Your task to perform on an android device: turn on bluetooth scan Image 0: 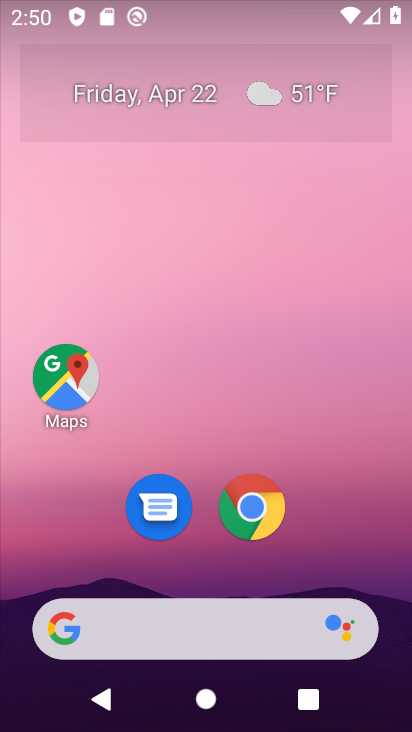
Step 0: drag from (210, 399) to (297, 45)
Your task to perform on an android device: turn on bluetooth scan Image 1: 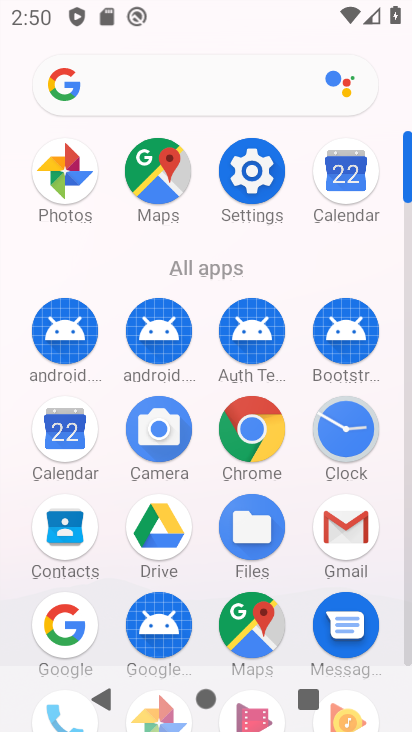
Step 1: click (262, 209)
Your task to perform on an android device: turn on bluetooth scan Image 2: 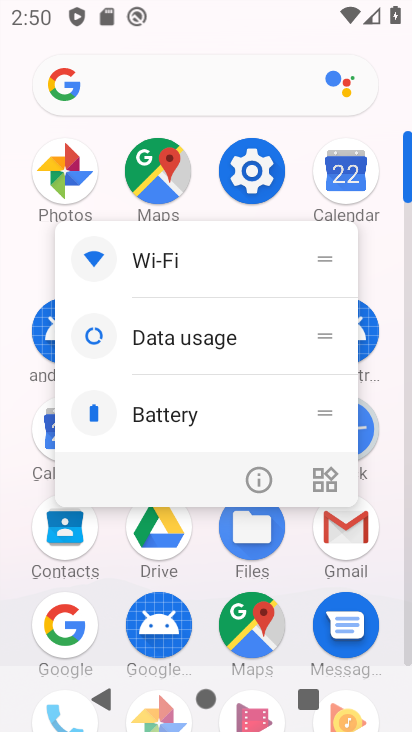
Step 2: click (253, 141)
Your task to perform on an android device: turn on bluetooth scan Image 3: 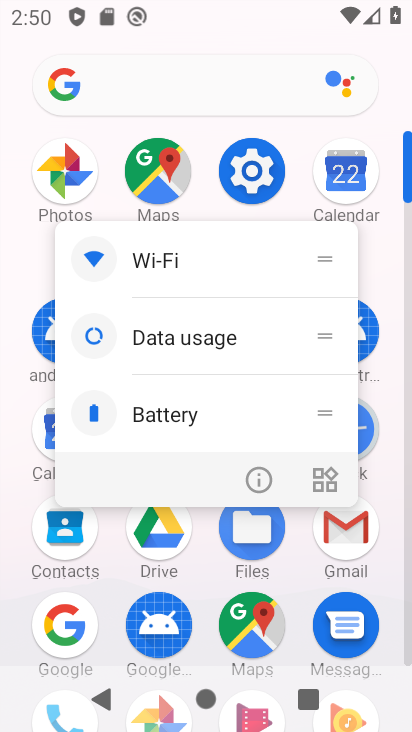
Step 3: click (250, 182)
Your task to perform on an android device: turn on bluetooth scan Image 4: 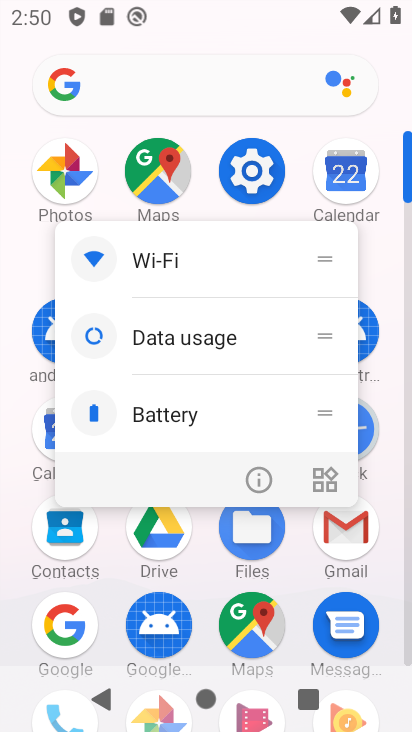
Step 4: click (257, 184)
Your task to perform on an android device: turn on bluetooth scan Image 5: 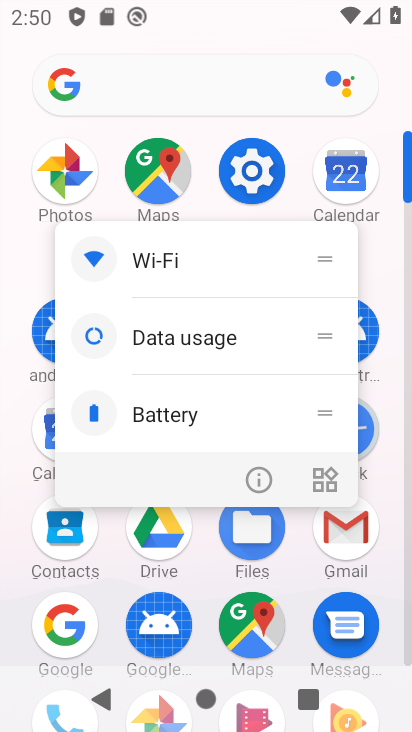
Step 5: click (261, 169)
Your task to perform on an android device: turn on bluetooth scan Image 6: 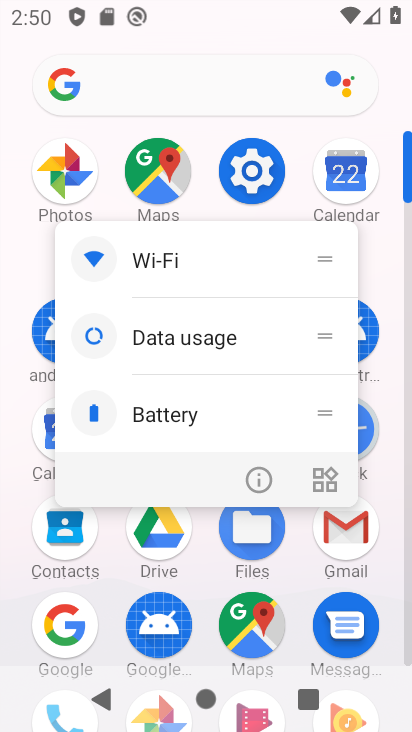
Step 6: click (251, 180)
Your task to perform on an android device: turn on bluetooth scan Image 7: 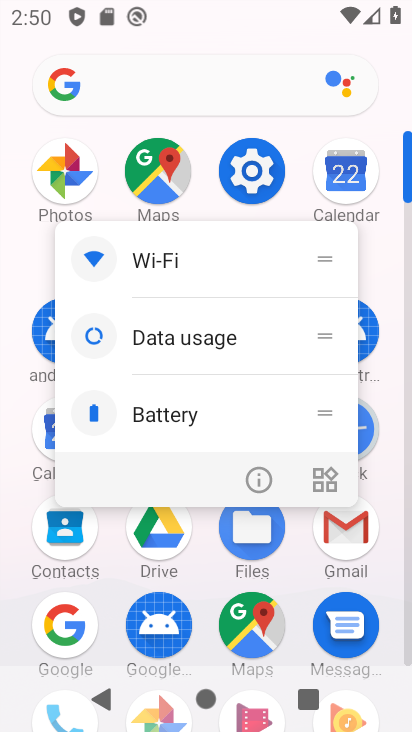
Step 7: click (241, 170)
Your task to perform on an android device: turn on bluetooth scan Image 8: 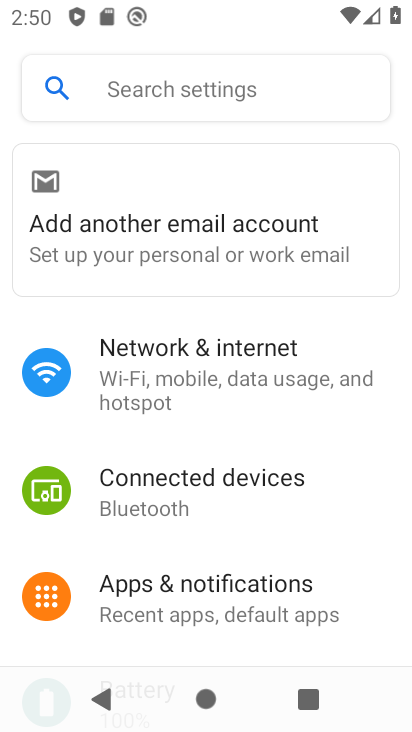
Step 8: click (193, 510)
Your task to perform on an android device: turn on bluetooth scan Image 9: 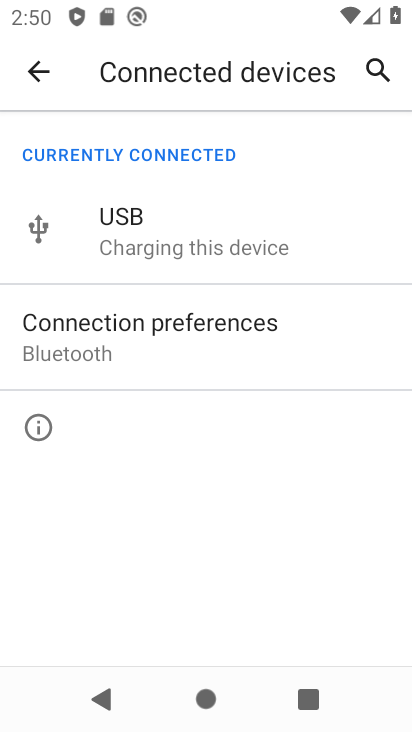
Step 9: click (155, 329)
Your task to perform on an android device: turn on bluetooth scan Image 10: 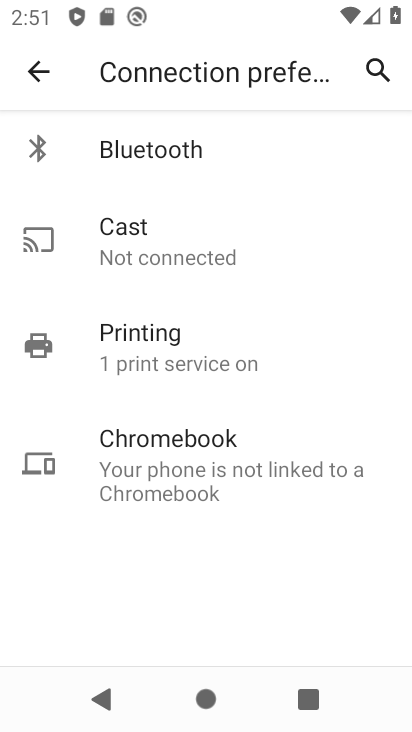
Step 10: click (164, 138)
Your task to perform on an android device: turn on bluetooth scan Image 11: 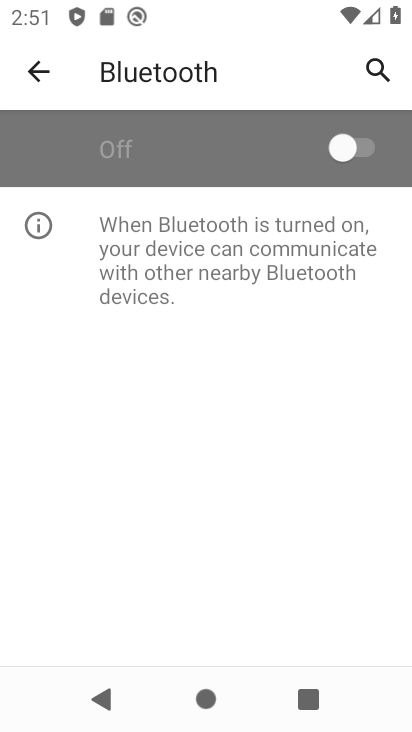
Step 11: click (355, 139)
Your task to perform on an android device: turn on bluetooth scan Image 12: 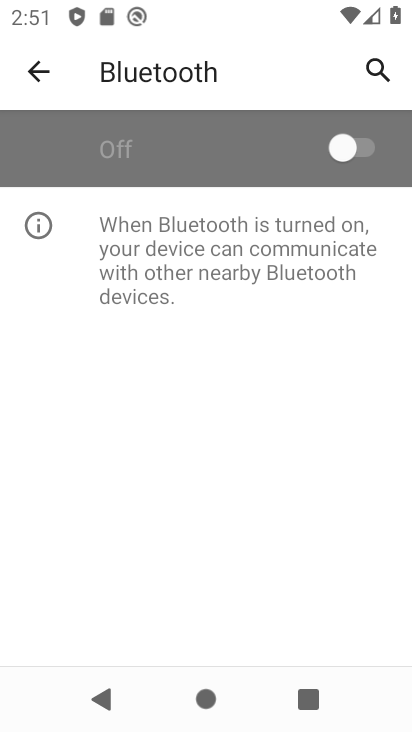
Step 12: task complete